Your task to perform on an android device: allow notifications from all sites in the chrome app Image 0: 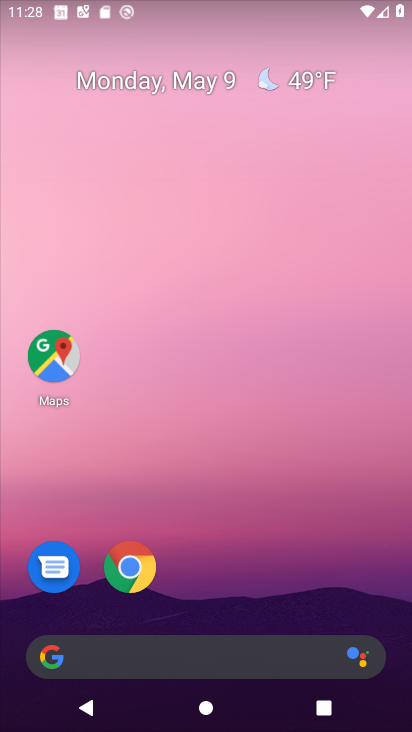
Step 0: click (133, 560)
Your task to perform on an android device: allow notifications from all sites in the chrome app Image 1: 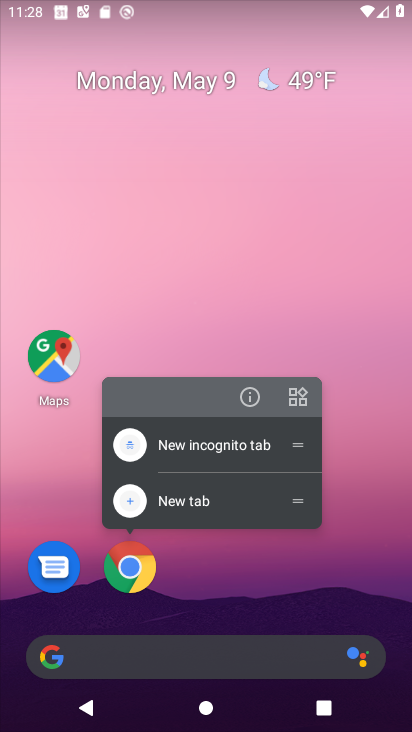
Step 1: click (134, 561)
Your task to perform on an android device: allow notifications from all sites in the chrome app Image 2: 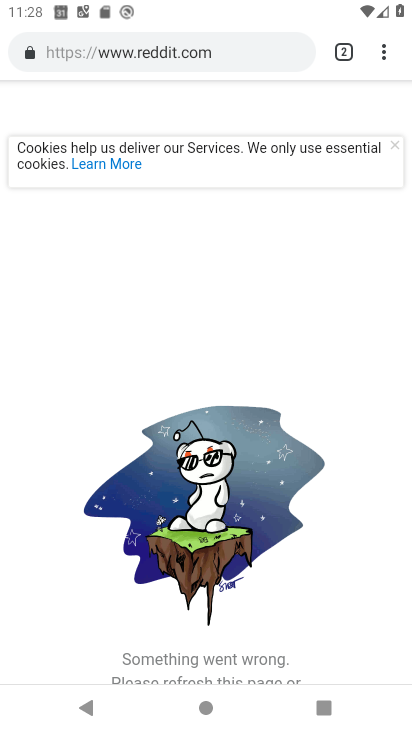
Step 2: click (386, 49)
Your task to perform on an android device: allow notifications from all sites in the chrome app Image 3: 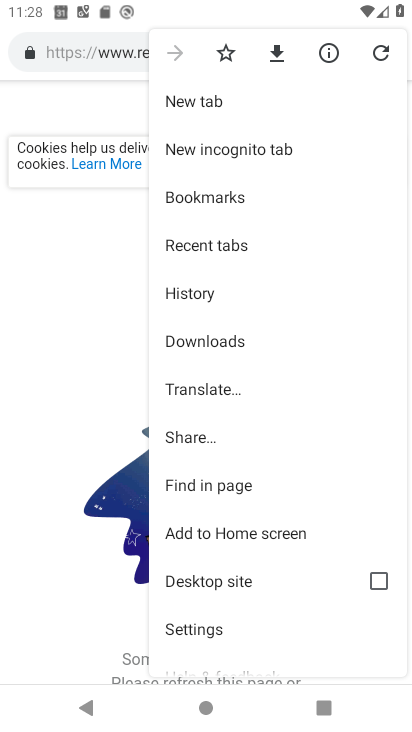
Step 3: click (211, 638)
Your task to perform on an android device: allow notifications from all sites in the chrome app Image 4: 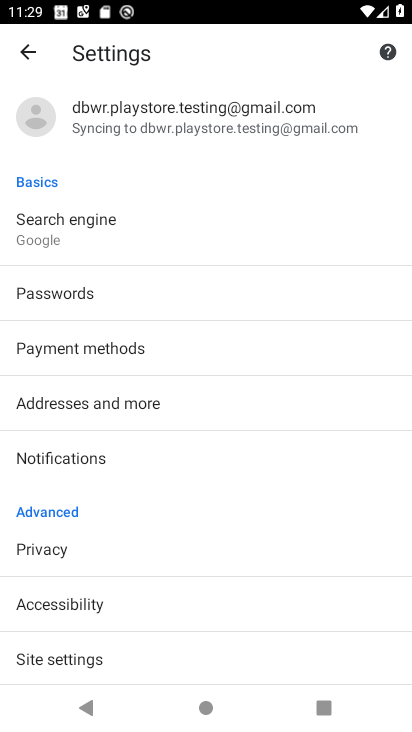
Step 4: click (40, 661)
Your task to perform on an android device: allow notifications from all sites in the chrome app Image 5: 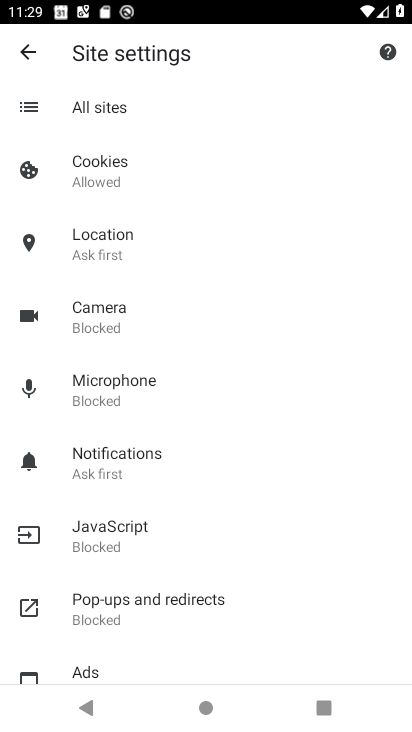
Step 5: click (128, 470)
Your task to perform on an android device: allow notifications from all sites in the chrome app Image 6: 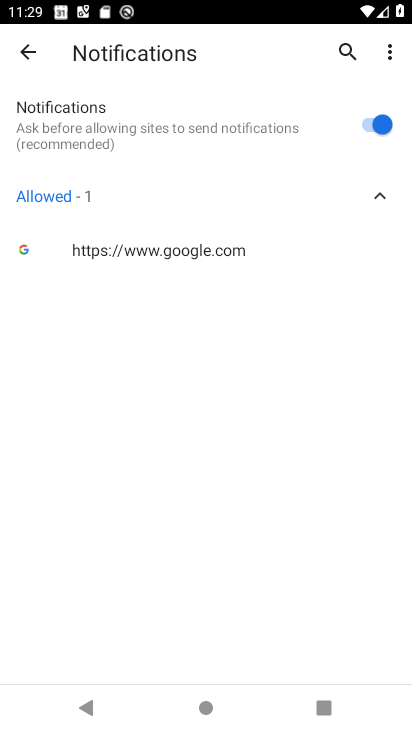
Step 6: task complete